Your task to perform on an android device: Go to wifi settings Image 0: 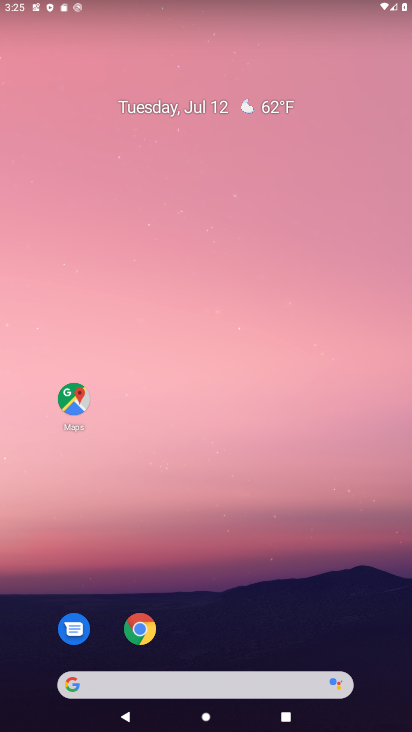
Step 0: drag from (219, 671) to (227, 1)
Your task to perform on an android device: Go to wifi settings Image 1: 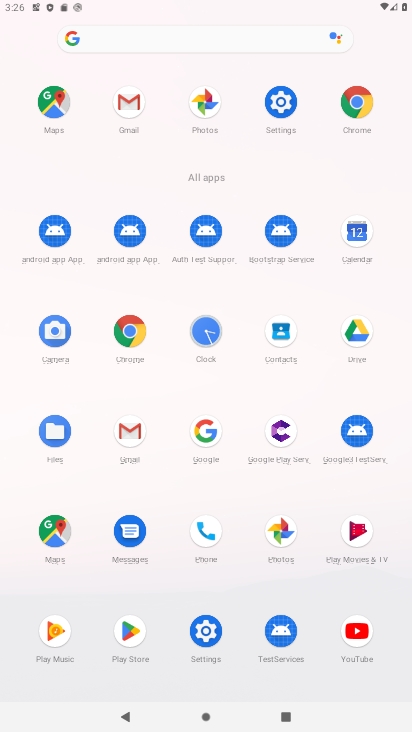
Step 1: click (201, 639)
Your task to perform on an android device: Go to wifi settings Image 2: 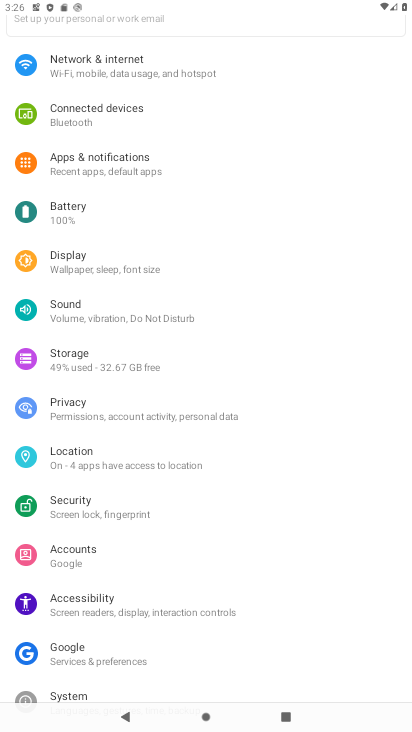
Step 2: drag from (104, 153) to (28, 612)
Your task to perform on an android device: Go to wifi settings Image 3: 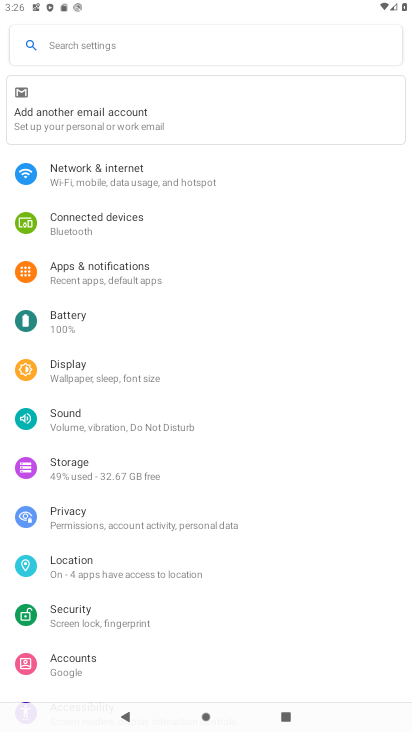
Step 3: click (49, 166)
Your task to perform on an android device: Go to wifi settings Image 4: 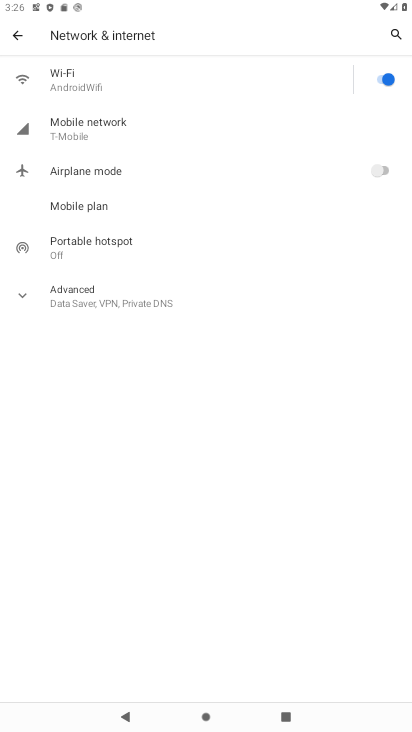
Step 4: click (78, 80)
Your task to perform on an android device: Go to wifi settings Image 5: 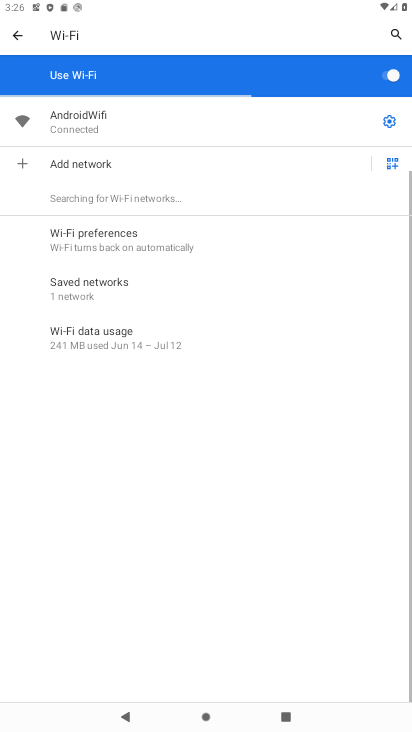
Step 5: task complete